Your task to perform on an android device: change notifications settings Image 0: 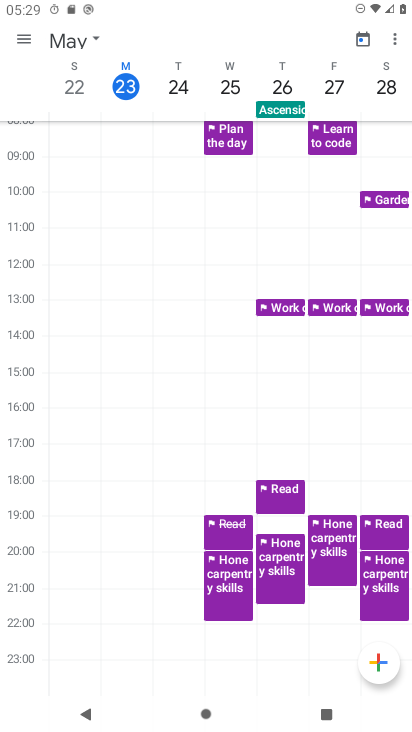
Step 0: press home button
Your task to perform on an android device: change notifications settings Image 1: 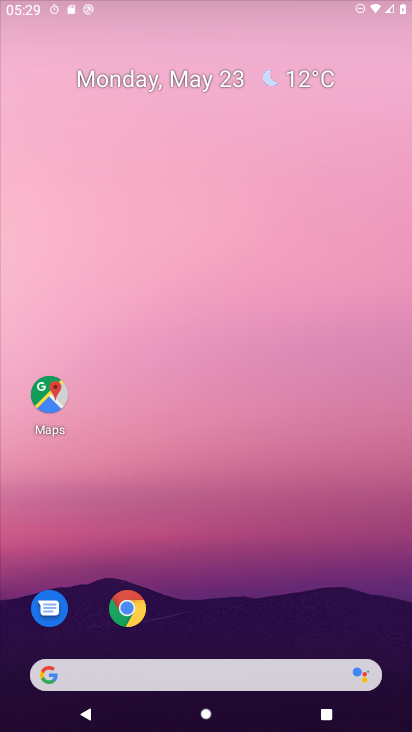
Step 1: drag from (312, 530) to (157, 0)
Your task to perform on an android device: change notifications settings Image 2: 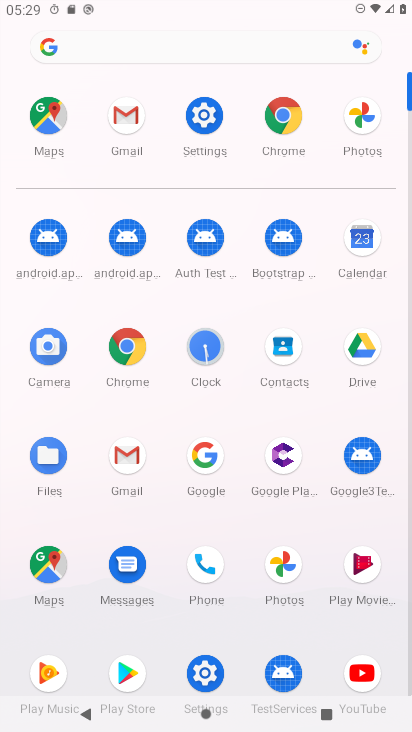
Step 2: click (208, 118)
Your task to perform on an android device: change notifications settings Image 3: 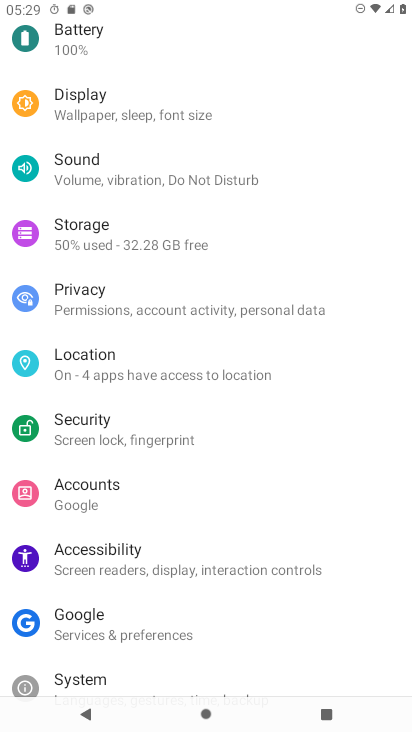
Step 3: drag from (228, 114) to (246, 708)
Your task to perform on an android device: change notifications settings Image 4: 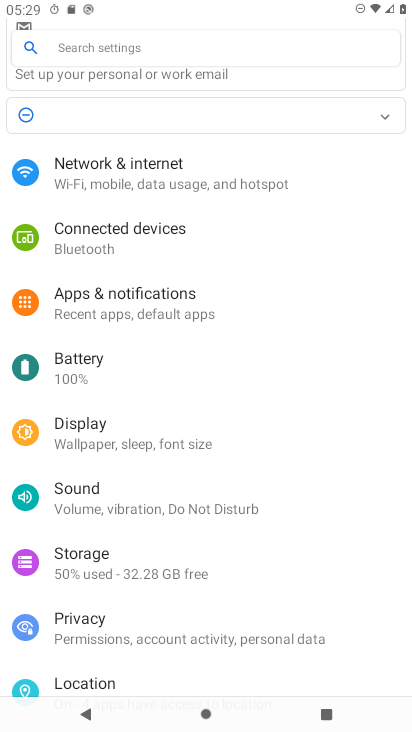
Step 4: click (170, 294)
Your task to perform on an android device: change notifications settings Image 5: 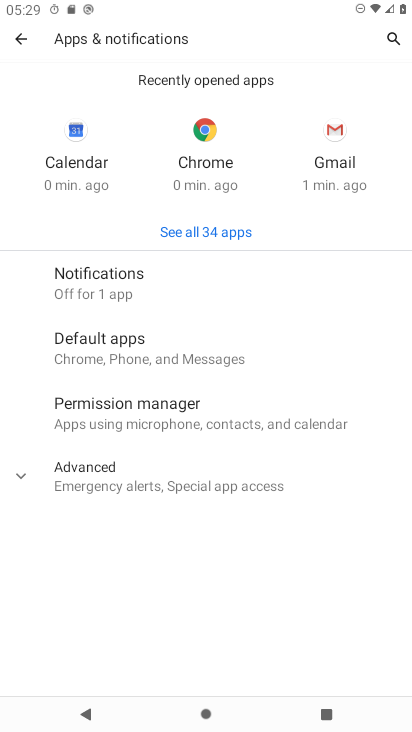
Step 5: click (231, 286)
Your task to perform on an android device: change notifications settings Image 6: 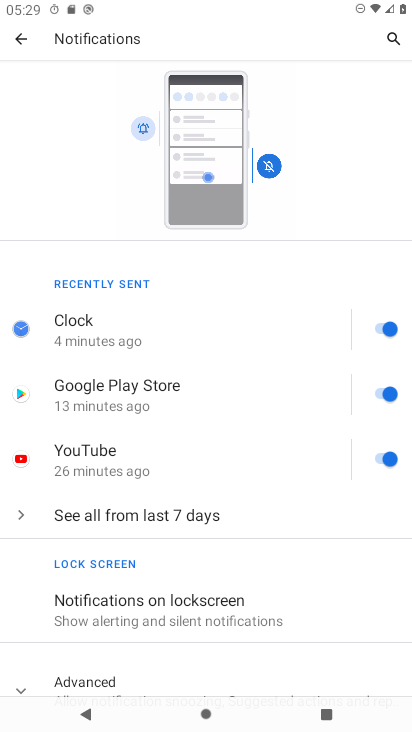
Step 6: click (380, 324)
Your task to perform on an android device: change notifications settings Image 7: 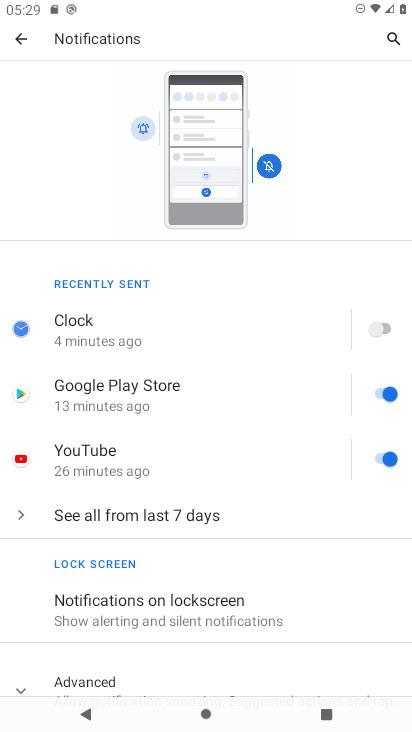
Step 7: click (380, 399)
Your task to perform on an android device: change notifications settings Image 8: 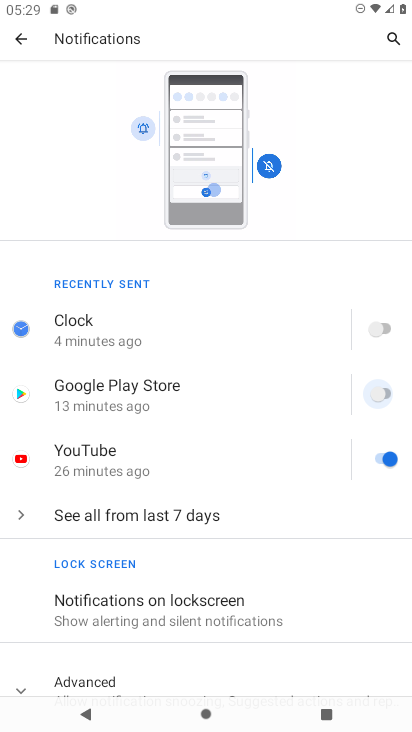
Step 8: click (386, 450)
Your task to perform on an android device: change notifications settings Image 9: 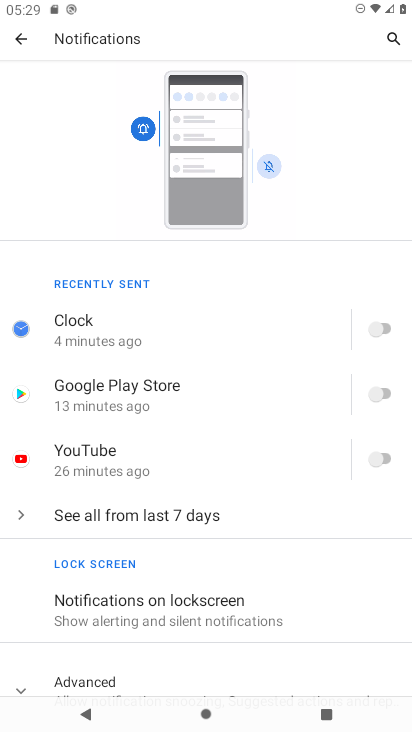
Step 9: task complete